Your task to perform on an android device: How do I get to the nearest AT&T Store? Image 0: 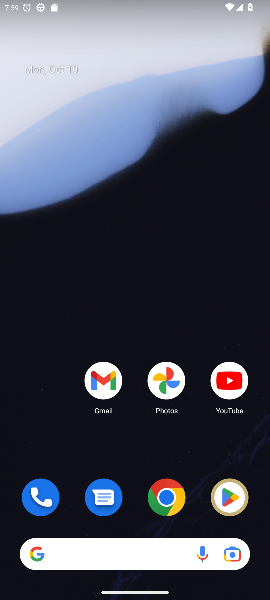
Step 0: drag from (117, 479) to (145, 91)
Your task to perform on an android device: How do I get to the nearest AT&T Store? Image 1: 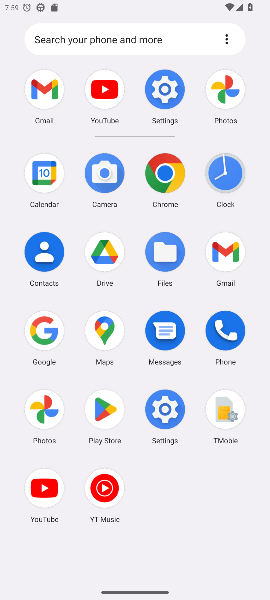
Step 1: click (45, 322)
Your task to perform on an android device: How do I get to the nearest AT&T Store? Image 2: 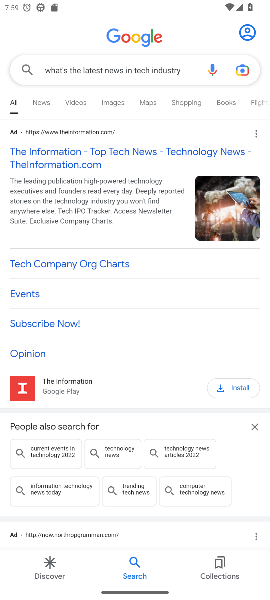
Step 2: click (88, 68)
Your task to perform on an android device: How do I get to the nearest AT&T Store? Image 3: 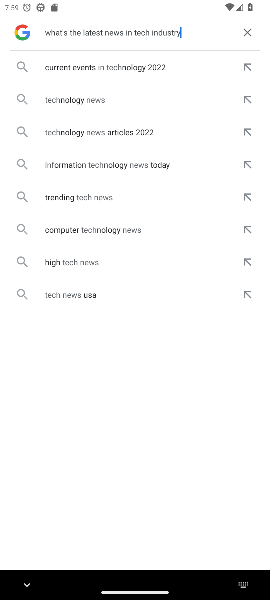
Step 3: click (246, 30)
Your task to perform on an android device: How do I get to the nearest AT&T Store? Image 4: 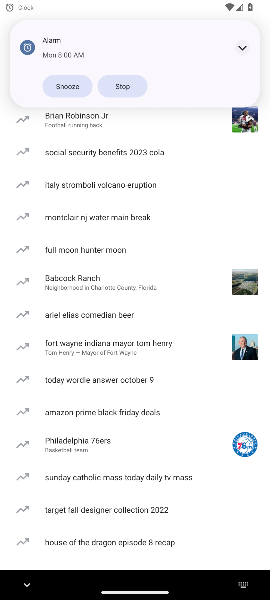
Step 4: click (120, 86)
Your task to perform on an android device: How do I get to the nearest AT&T Store? Image 5: 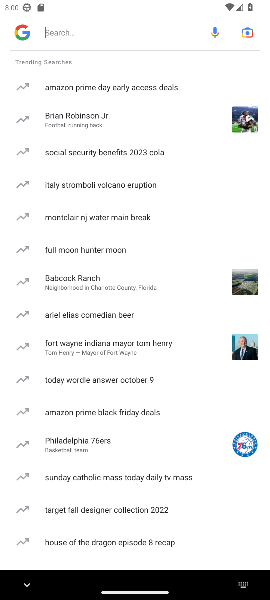
Step 5: click (103, 23)
Your task to perform on an android device: How do I get to the nearest AT&T Store? Image 6: 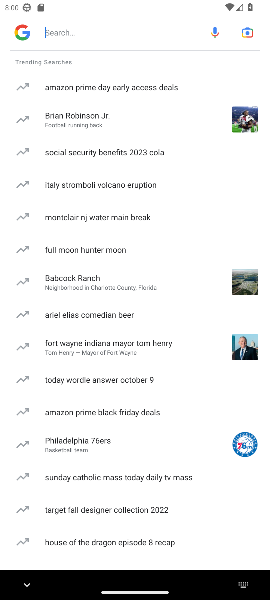
Step 6: type "How do I get to the nearest AT&T Store? "
Your task to perform on an android device: How do I get to the nearest AT&T Store? Image 7: 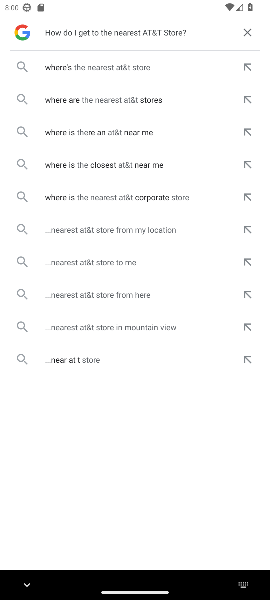
Step 7: click (87, 68)
Your task to perform on an android device: How do I get to the nearest AT&T Store? Image 8: 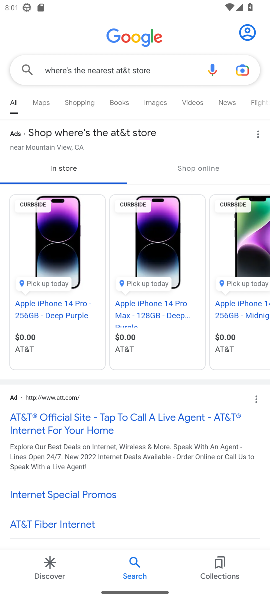
Step 8: task complete